Your task to perform on an android device: turn vacation reply on in the gmail app Image 0: 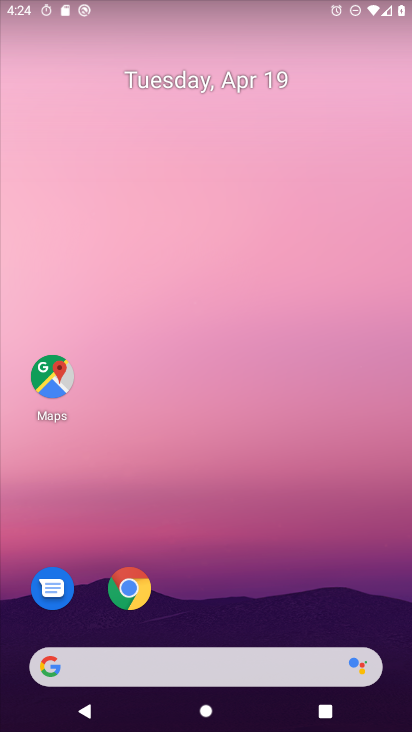
Step 0: drag from (201, 593) to (205, 117)
Your task to perform on an android device: turn vacation reply on in the gmail app Image 1: 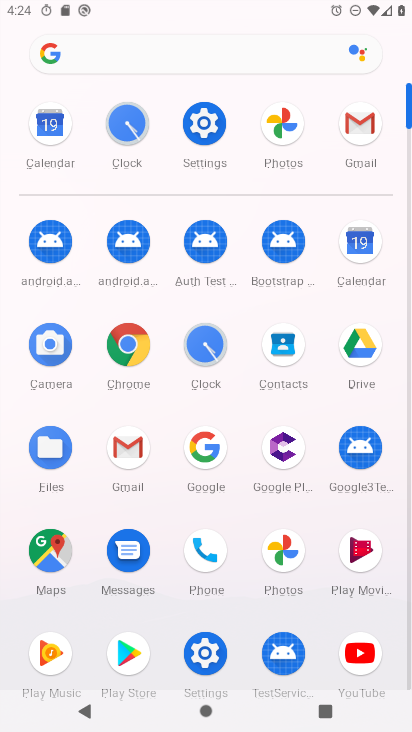
Step 1: click (129, 448)
Your task to perform on an android device: turn vacation reply on in the gmail app Image 2: 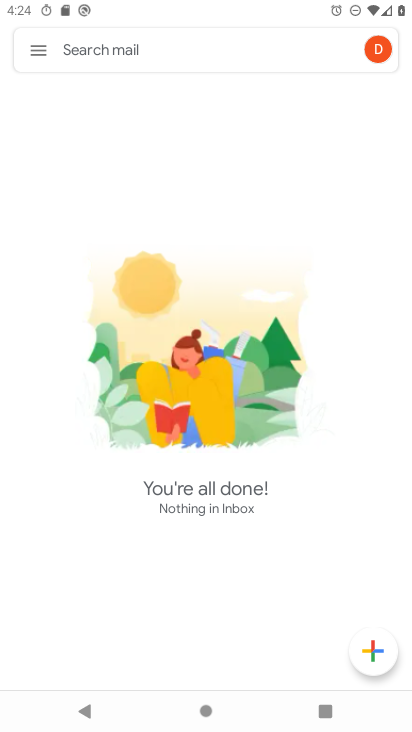
Step 2: click (38, 50)
Your task to perform on an android device: turn vacation reply on in the gmail app Image 3: 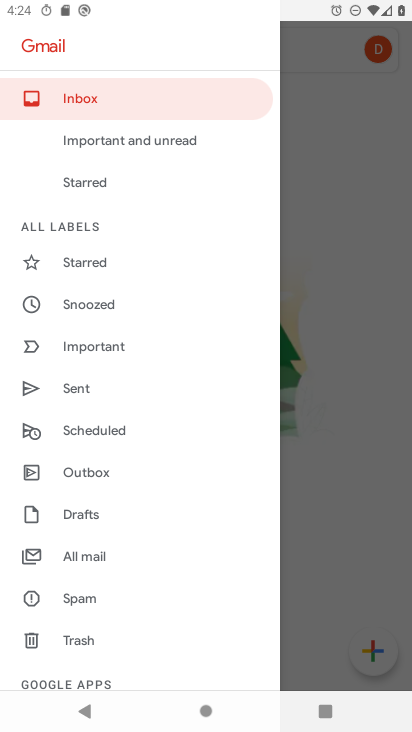
Step 3: drag from (119, 639) to (93, 231)
Your task to perform on an android device: turn vacation reply on in the gmail app Image 4: 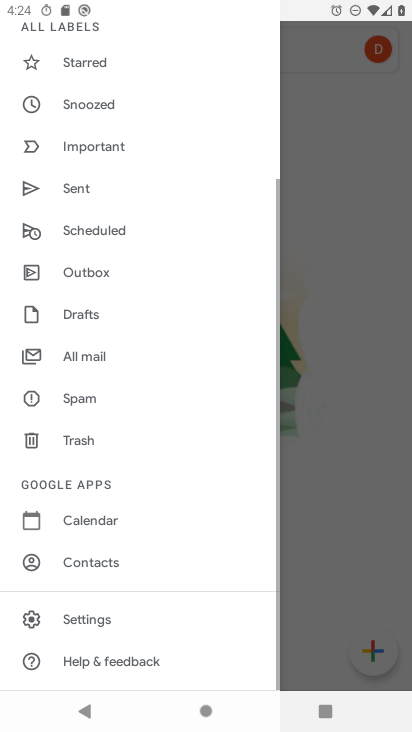
Step 4: click (119, 623)
Your task to perform on an android device: turn vacation reply on in the gmail app Image 5: 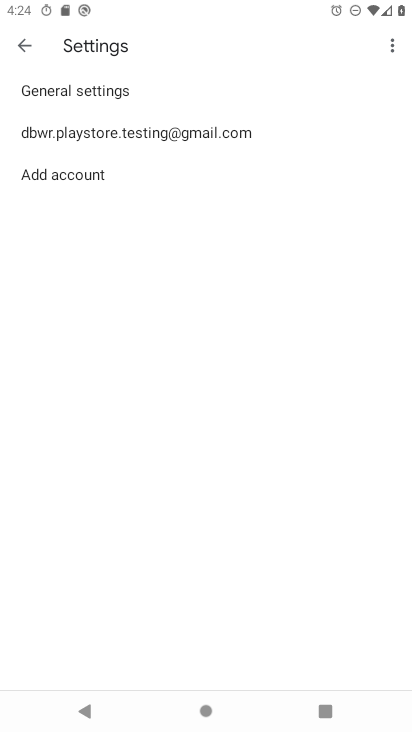
Step 5: click (89, 134)
Your task to perform on an android device: turn vacation reply on in the gmail app Image 6: 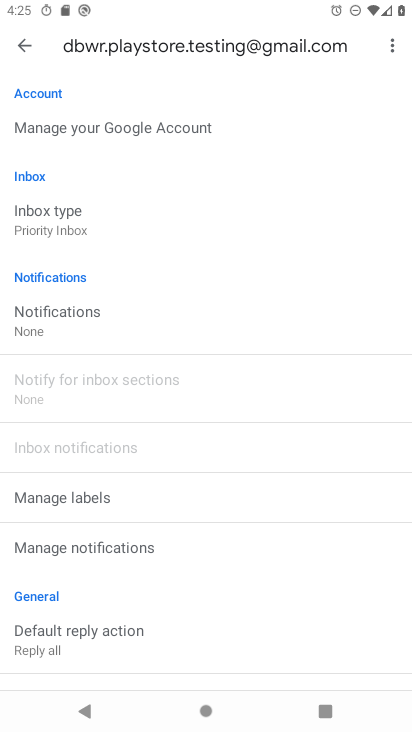
Step 6: drag from (174, 455) to (181, 120)
Your task to perform on an android device: turn vacation reply on in the gmail app Image 7: 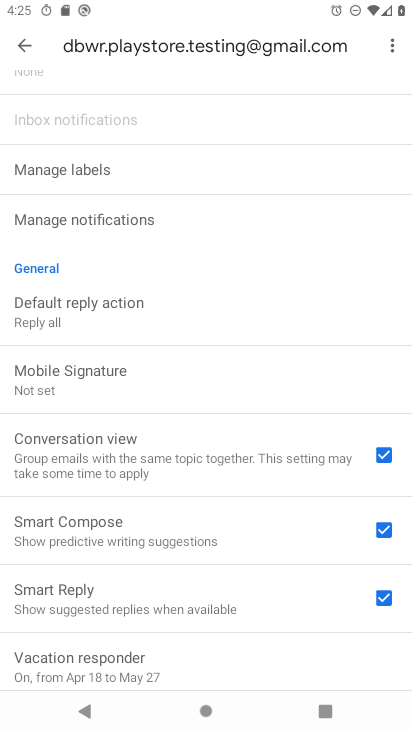
Step 7: drag from (208, 570) to (221, 257)
Your task to perform on an android device: turn vacation reply on in the gmail app Image 8: 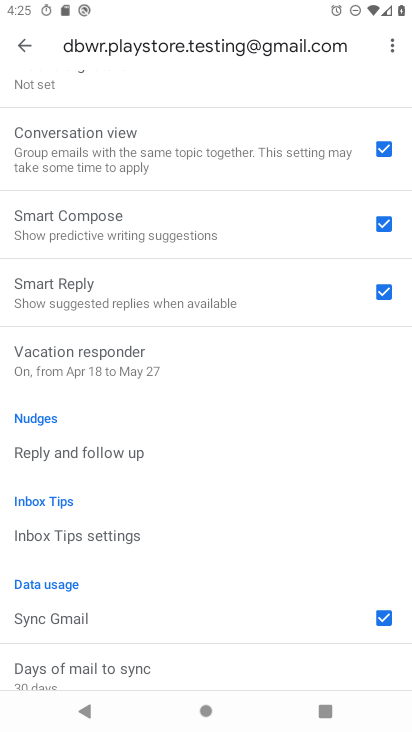
Step 8: click (145, 373)
Your task to perform on an android device: turn vacation reply on in the gmail app Image 9: 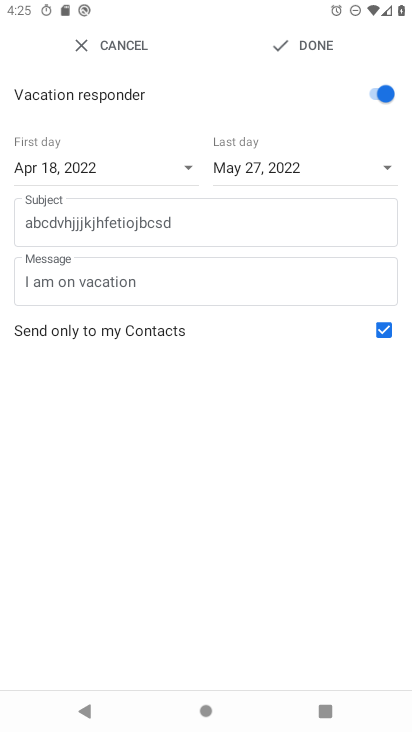
Step 9: click (295, 35)
Your task to perform on an android device: turn vacation reply on in the gmail app Image 10: 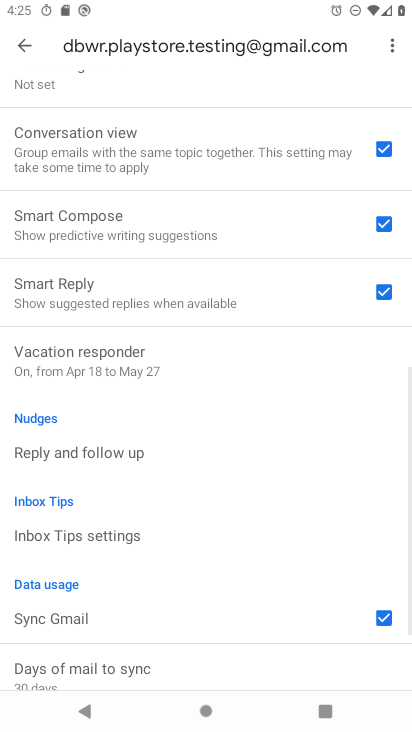
Step 10: task complete